Your task to perform on an android device: turn notification dots on Image 0: 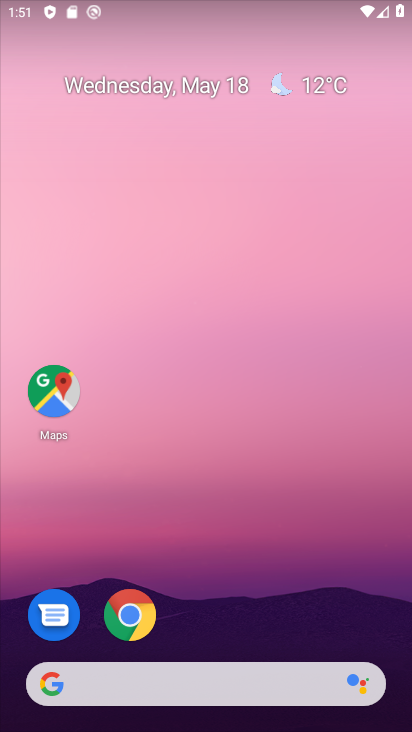
Step 0: click (279, 8)
Your task to perform on an android device: turn notification dots on Image 1: 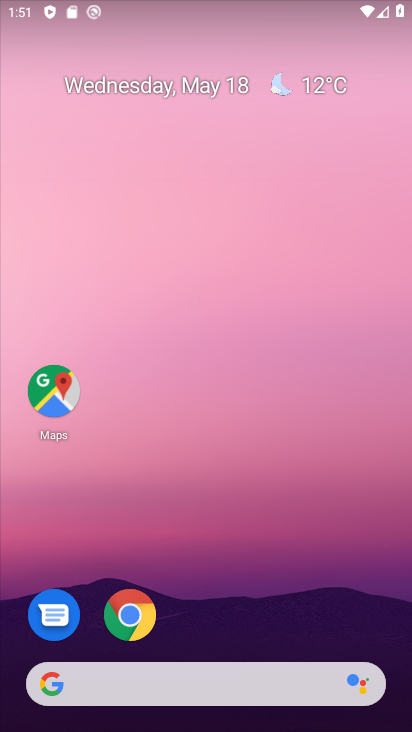
Step 1: drag from (313, 602) to (272, 14)
Your task to perform on an android device: turn notification dots on Image 2: 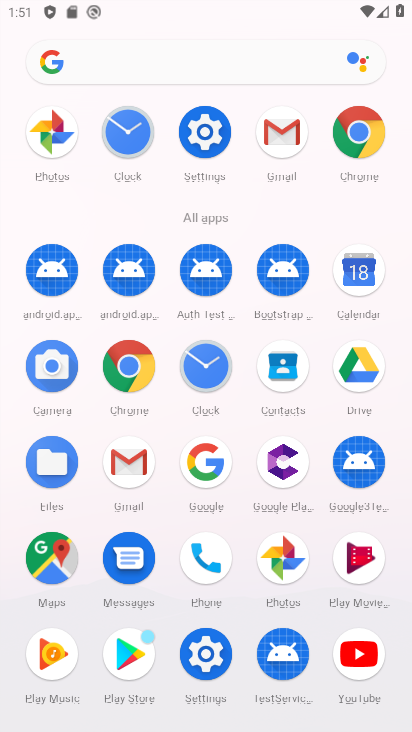
Step 2: click (193, 678)
Your task to perform on an android device: turn notification dots on Image 3: 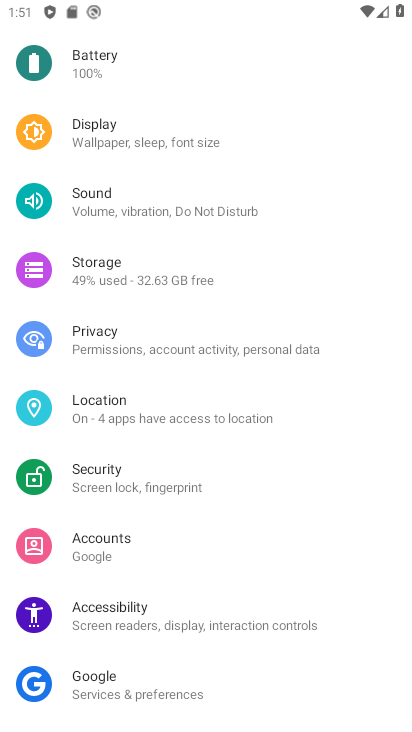
Step 3: drag from (223, 162) to (269, 557)
Your task to perform on an android device: turn notification dots on Image 4: 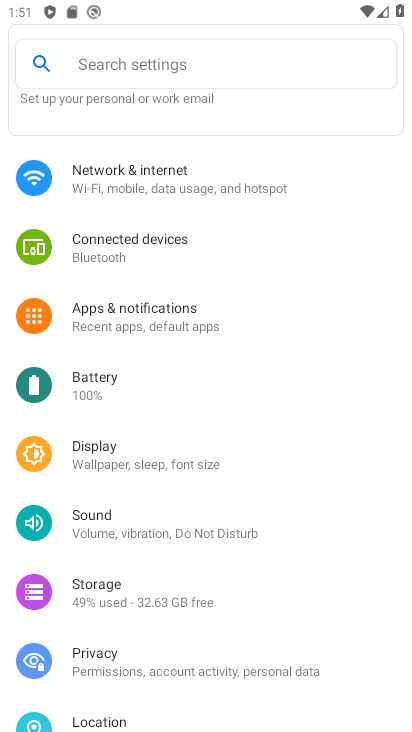
Step 4: click (170, 307)
Your task to perform on an android device: turn notification dots on Image 5: 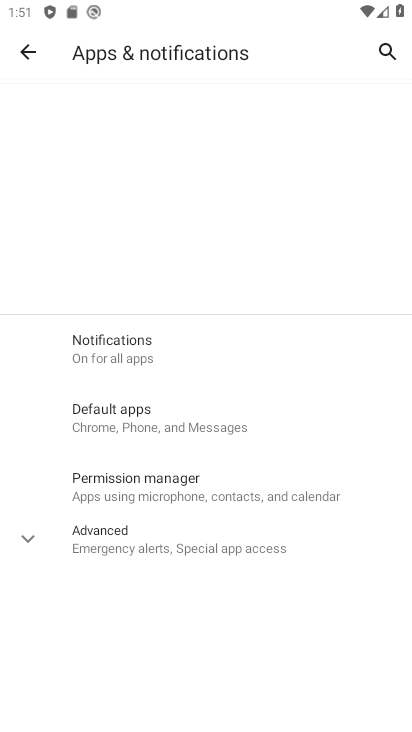
Step 5: click (144, 340)
Your task to perform on an android device: turn notification dots on Image 6: 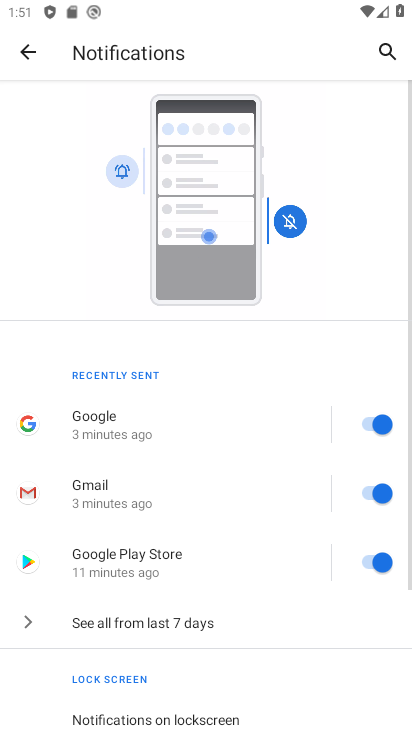
Step 6: drag from (148, 629) to (233, 61)
Your task to perform on an android device: turn notification dots on Image 7: 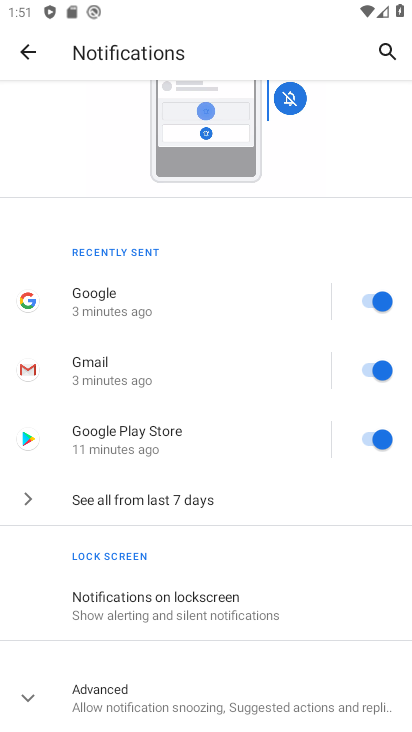
Step 7: click (130, 692)
Your task to perform on an android device: turn notification dots on Image 8: 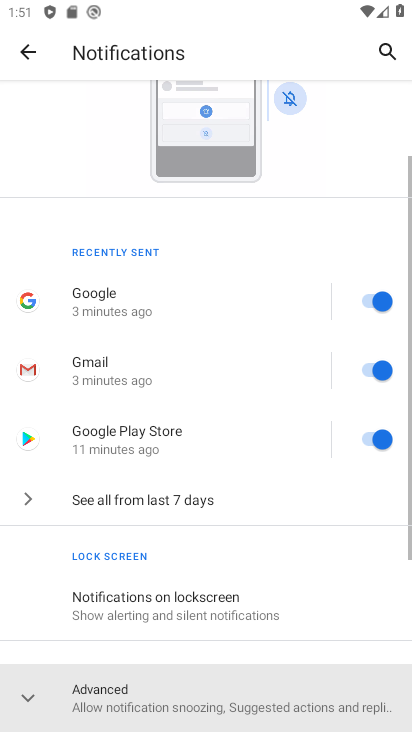
Step 8: drag from (131, 693) to (226, 203)
Your task to perform on an android device: turn notification dots on Image 9: 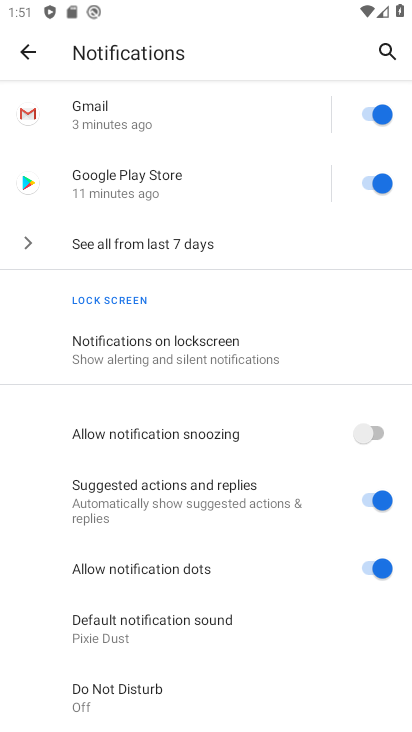
Step 9: click (292, 570)
Your task to perform on an android device: turn notification dots on Image 10: 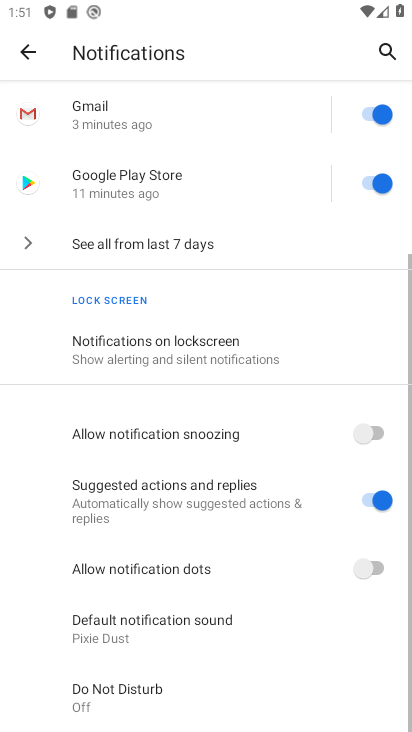
Step 10: click (292, 570)
Your task to perform on an android device: turn notification dots on Image 11: 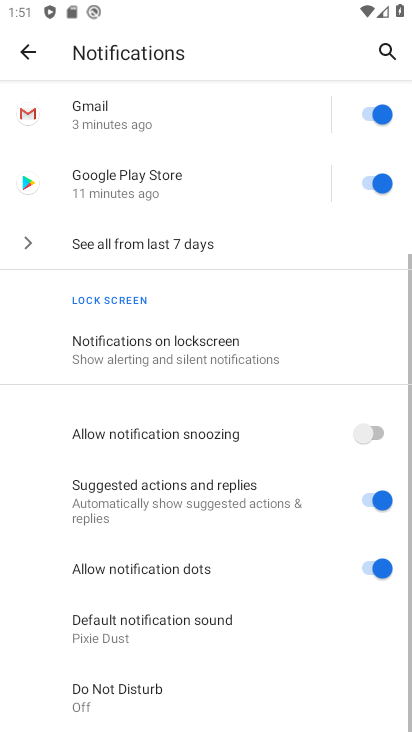
Step 11: task complete